Your task to perform on an android device: change the upload size in google photos Image 0: 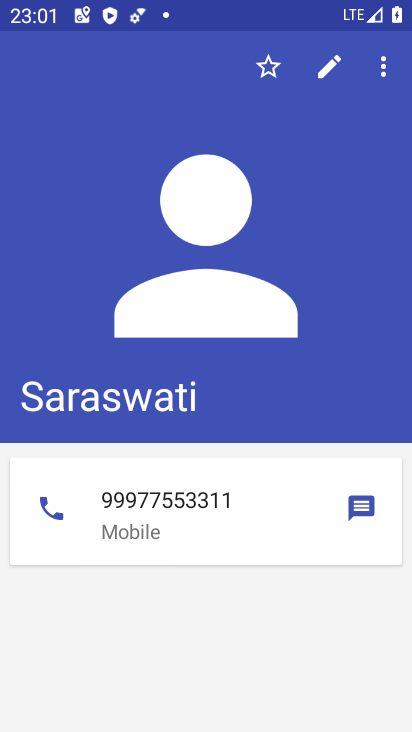
Step 0: press home button
Your task to perform on an android device: change the upload size in google photos Image 1: 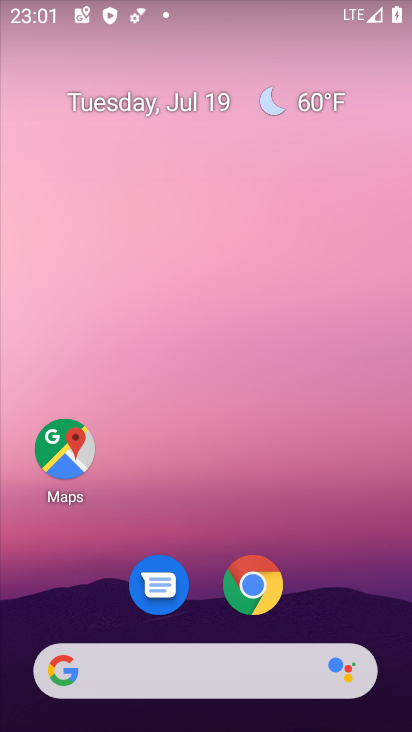
Step 1: drag from (221, 500) to (264, 31)
Your task to perform on an android device: change the upload size in google photos Image 2: 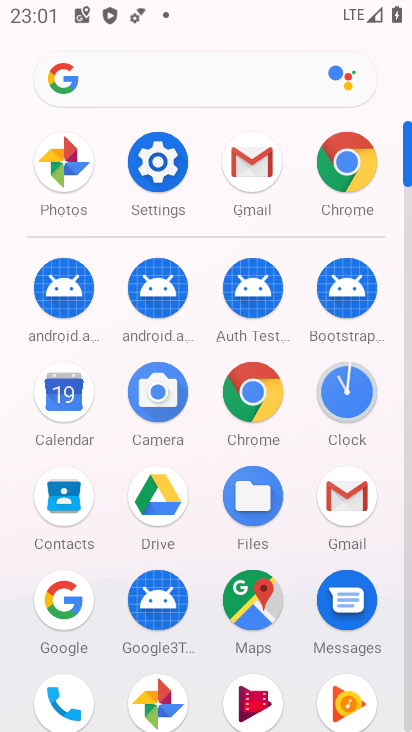
Step 2: click (64, 161)
Your task to perform on an android device: change the upload size in google photos Image 3: 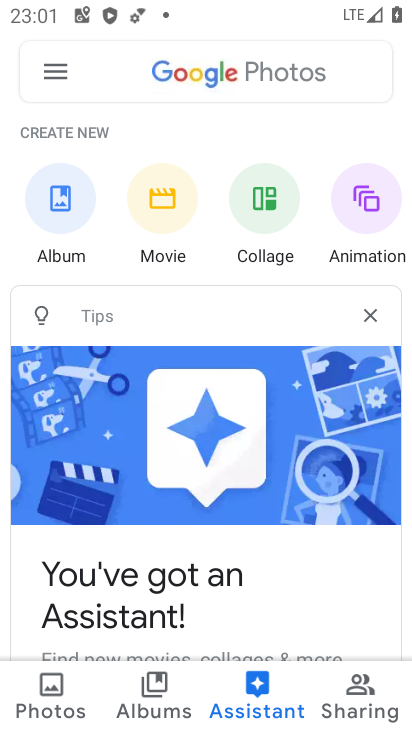
Step 3: click (54, 65)
Your task to perform on an android device: change the upload size in google photos Image 4: 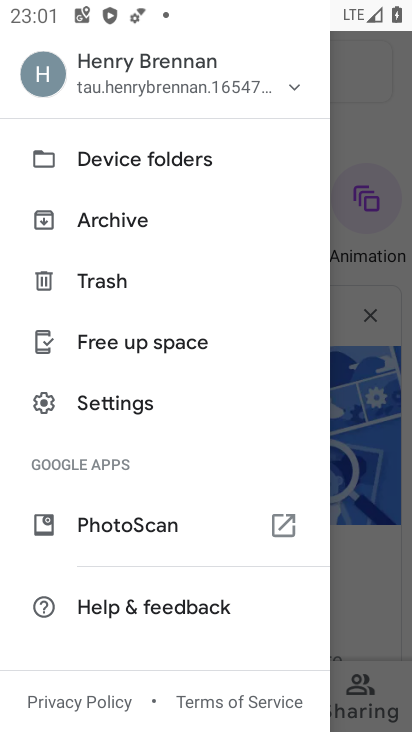
Step 4: click (92, 410)
Your task to perform on an android device: change the upload size in google photos Image 5: 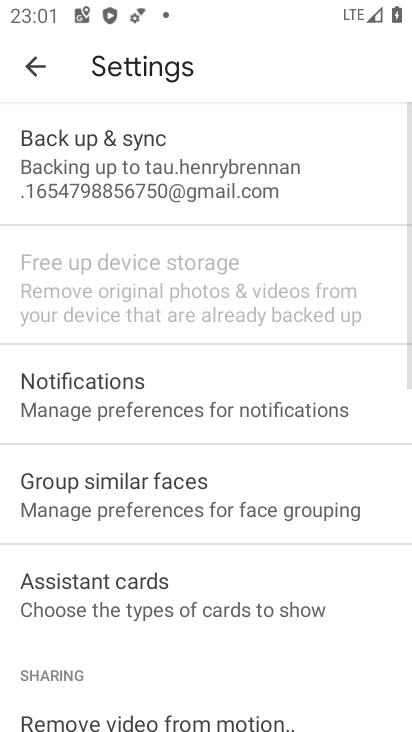
Step 5: click (158, 188)
Your task to perform on an android device: change the upload size in google photos Image 6: 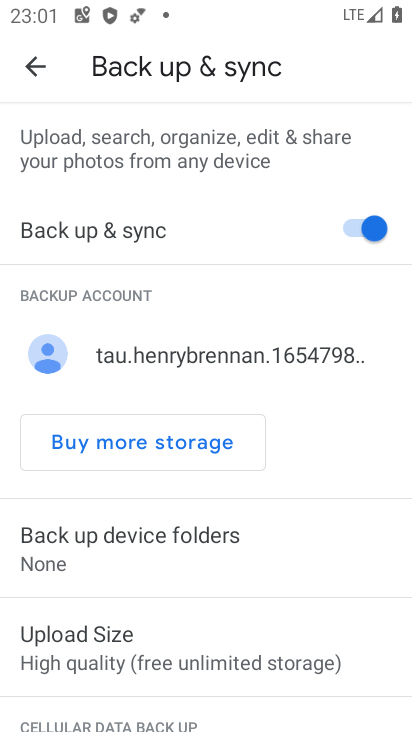
Step 6: click (168, 646)
Your task to perform on an android device: change the upload size in google photos Image 7: 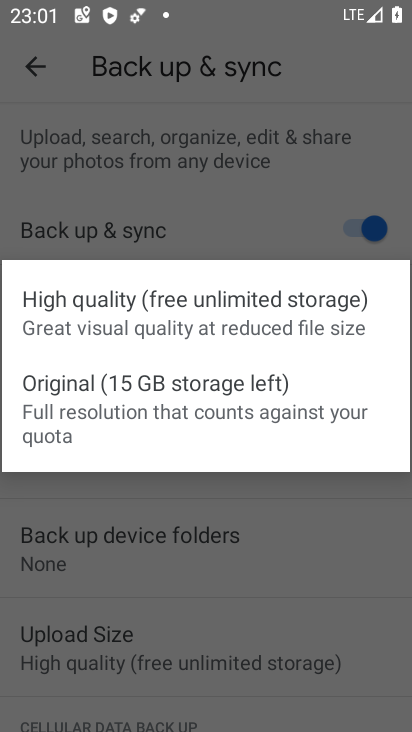
Step 7: click (240, 407)
Your task to perform on an android device: change the upload size in google photos Image 8: 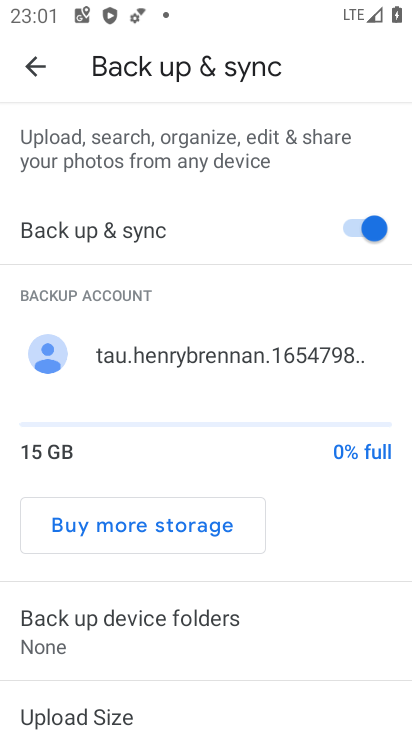
Step 8: task complete